Your task to perform on an android device: Go to notification settings Image 0: 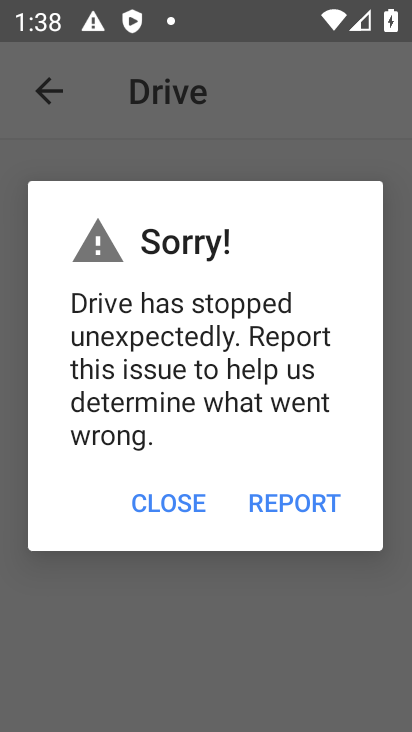
Step 0: click (164, 516)
Your task to perform on an android device: Go to notification settings Image 1: 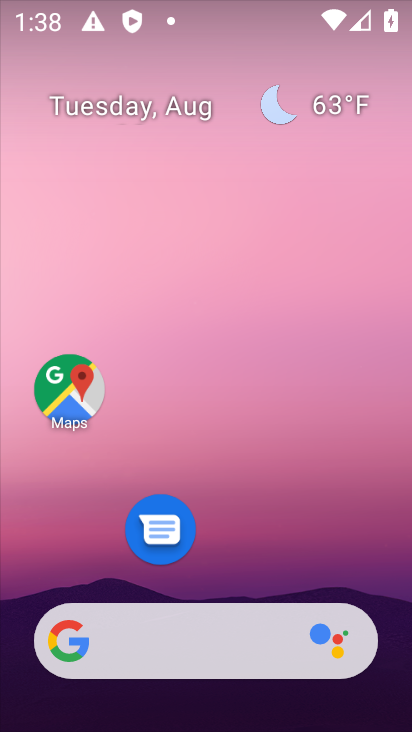
Step 1: drag from (224, 595) to (224, 8)
Your task to perform on an android device: Go to notification settings Image 2: 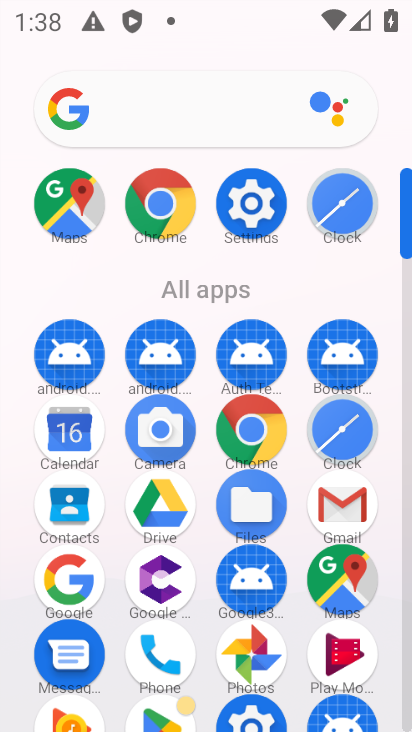
Step 2: click (230, 188)
Your task to perform on an android device: Go to notification settings Image 3: 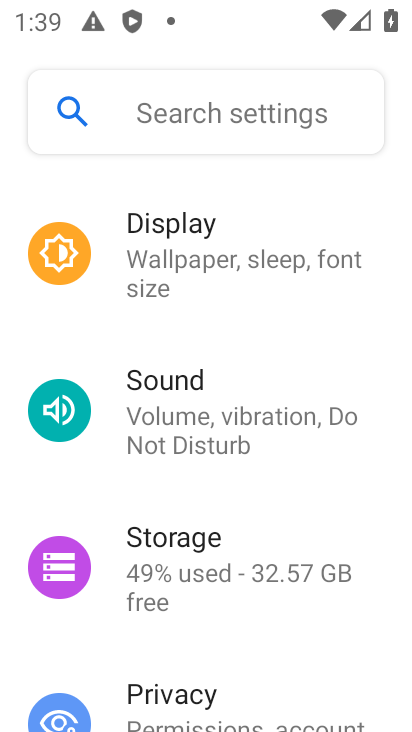
Step 3: drag from (189, 405) to (181, 710)
Your task to perform on an android device: Go to notification settings Image 4: 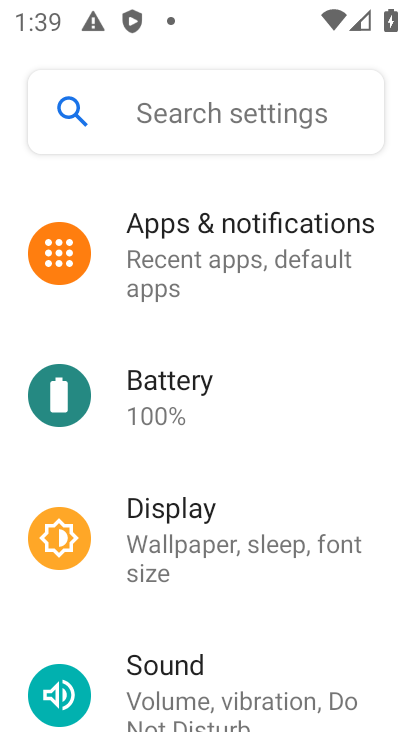
Step 4: click (243, 241)
Your task to perform on an android device: Go to notification settings Image 5: 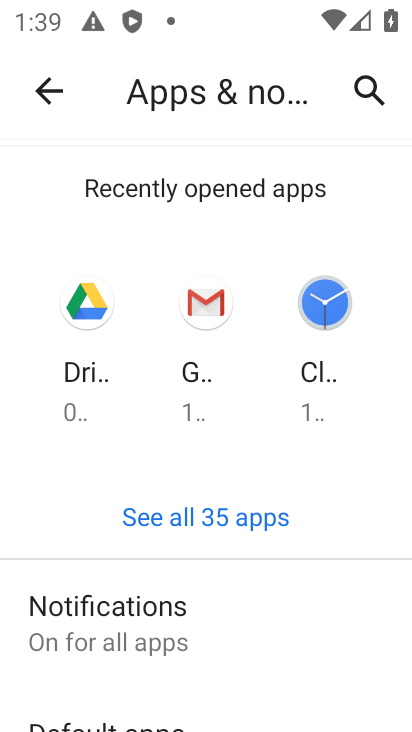
Step 5: task complete